Your task to perform on an android device: Open the map Image 0: 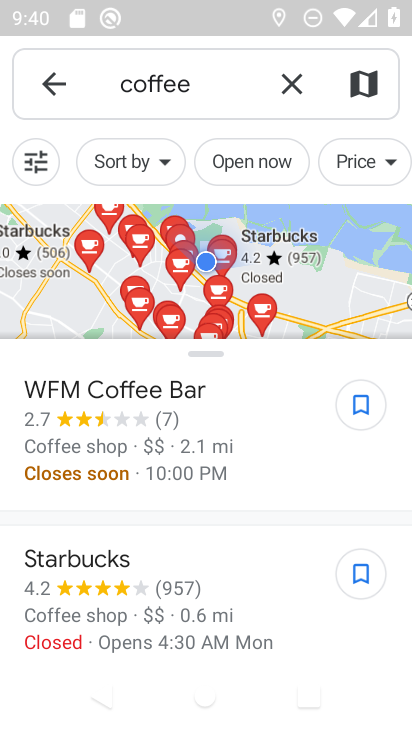
Step 0: press home button
Your task to perform on an android device: Open the map Image 1: 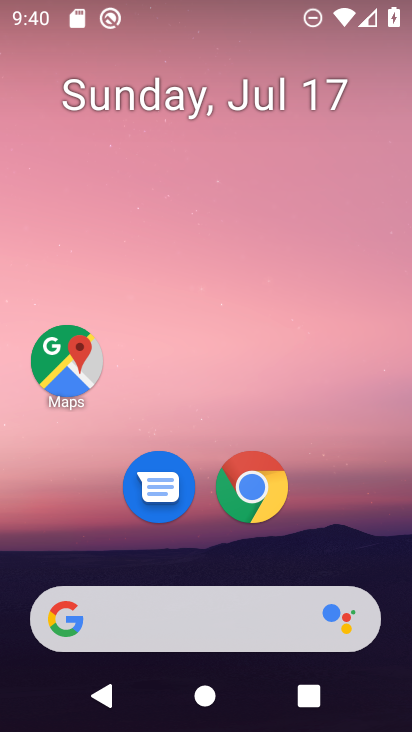
Step 1: drag from (317, 530) to (266, 31)
Your task to perform on an android device: Open the map Image 2: 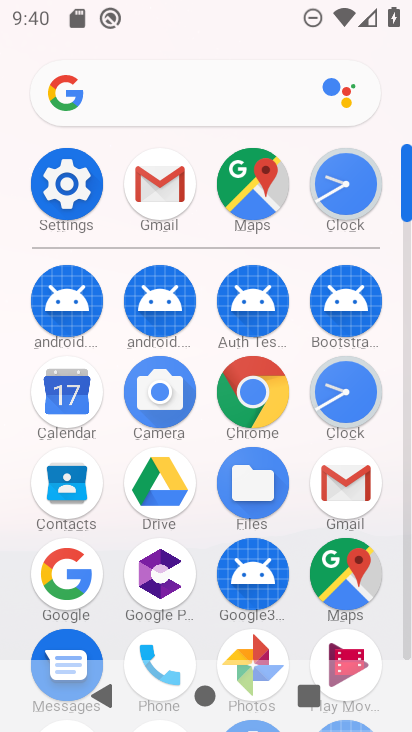
Step 2: click (358, 576)
Your task to perform on an android device: Open the map Image 3: 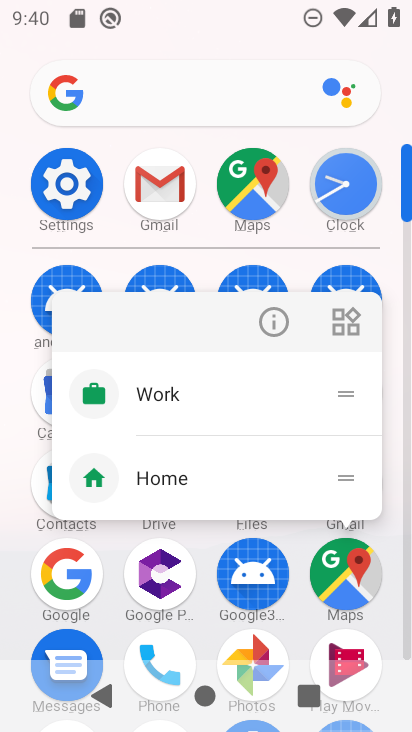
Step 3: click (336, 574)
Your task to perform on an android device: Open the map Image 4: 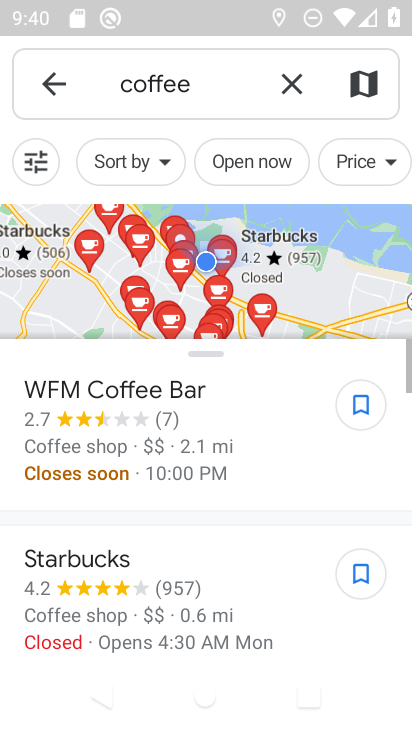
Step 4: click (48, 88)
Your task to perform on an android device: Open the map Image 5: 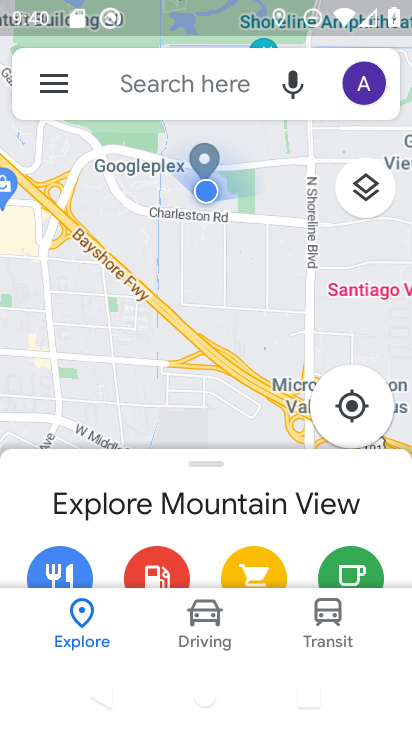
Step 5: task complete